Your task to perform on an android device: Open Youtube and go to the subscriptions tab Image 0: 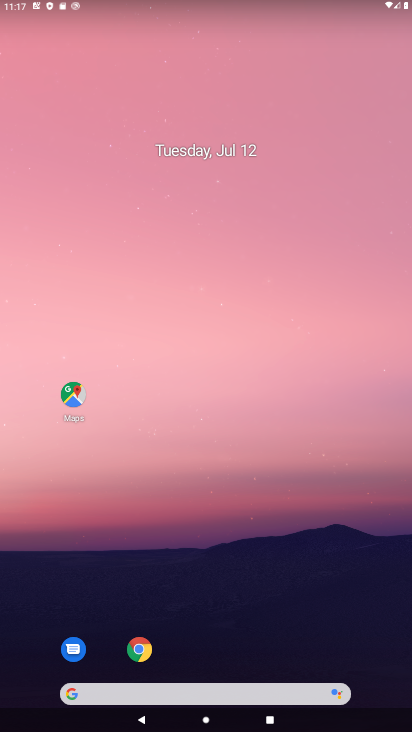
Step 0: drag from (379, 675) to (334, 54)
Your task to perform on an android device: Open Youtube and go to the subscriptions tab Image 1: 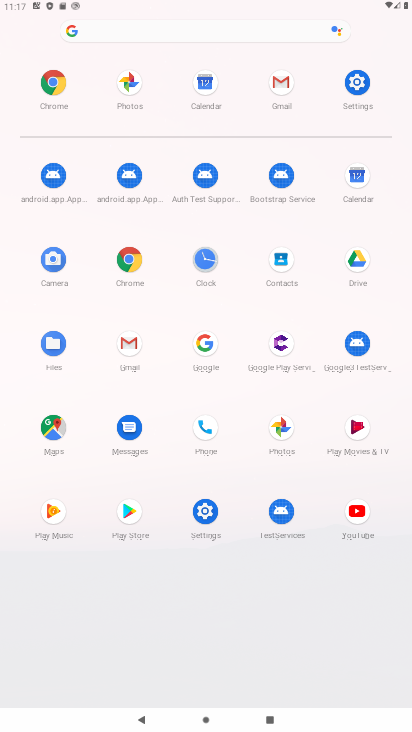
Step 1: click (357, 510)
Your task to perform on an android device: Open Youtube and go to the subscriptions tab Image 2: 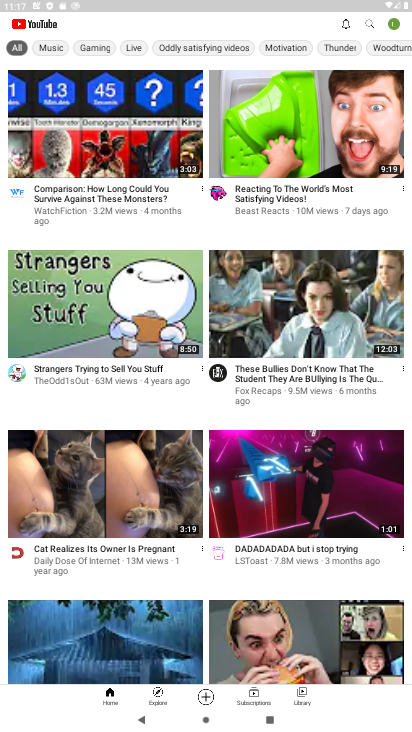
Step 2: click (252, 693)
Your task to perform on an android device: Open Youtube and go to the subscriptions tab Image 3: 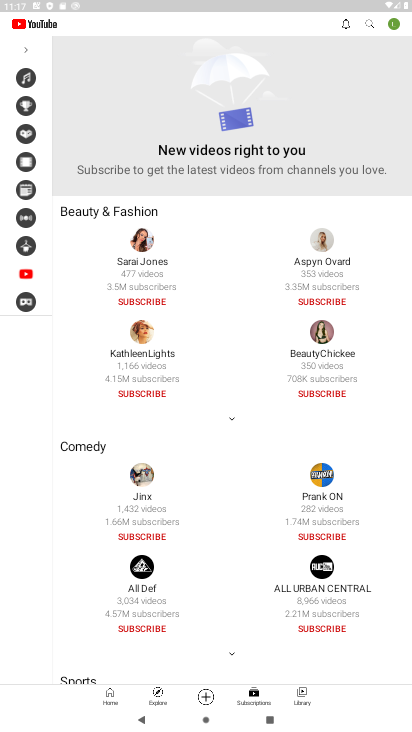
Step 3: task complete